Your task to perform on an android device: turn off location Image 0: 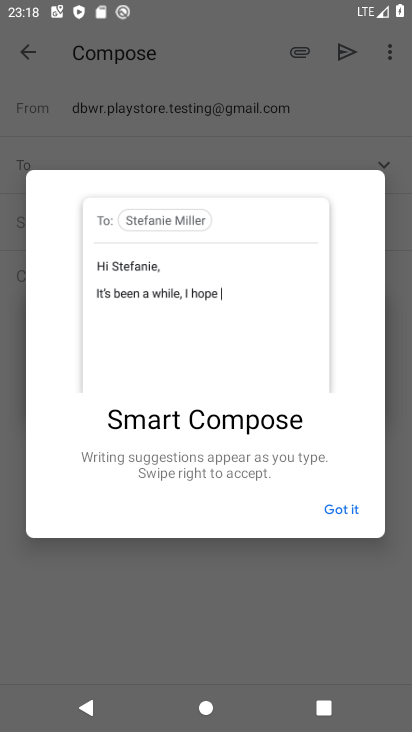
Step 0: press home button
Your task to perform on an android device: turn off location Image 1: 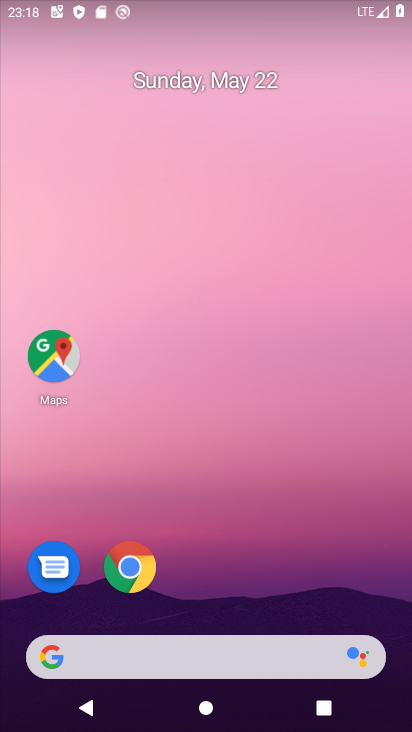
Step 1: drag from (246, 581) to (245, 2)
Your task to perform on an android device: turn off location Image 2: 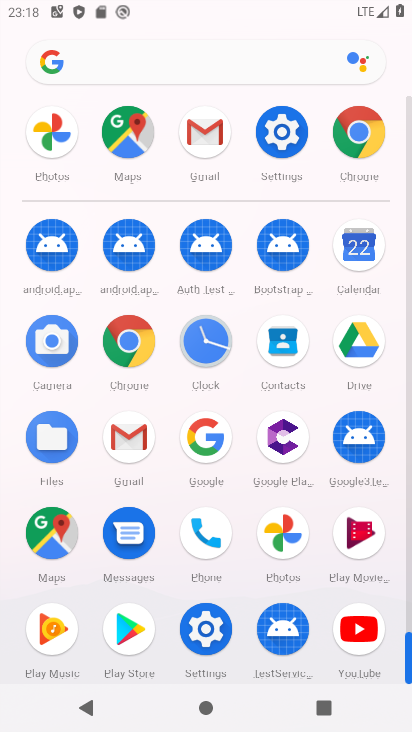
Step 2: click (11, 194)
Your task to perform on an android device: turn off location Image 3: 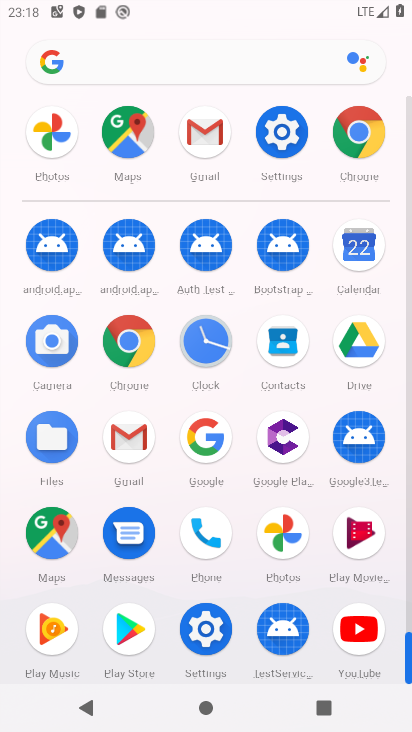
Step 3: click (203, 624)
Your task to perform on an android device: turn off location Image 4: 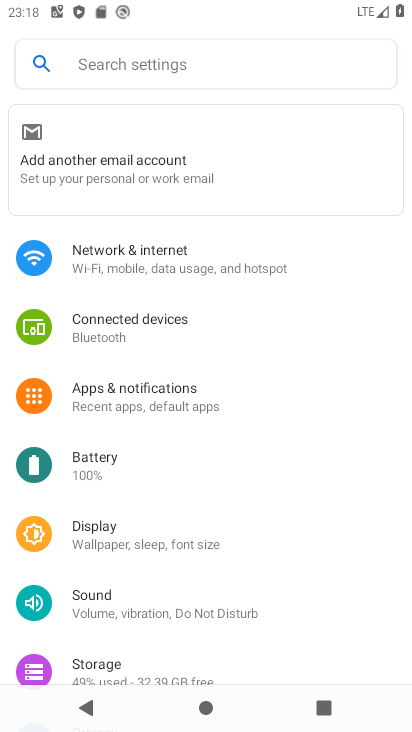
Step 4: drag from (214, 535) to (252, 107)
Your task to perform on an android device: turn off location Image 5: 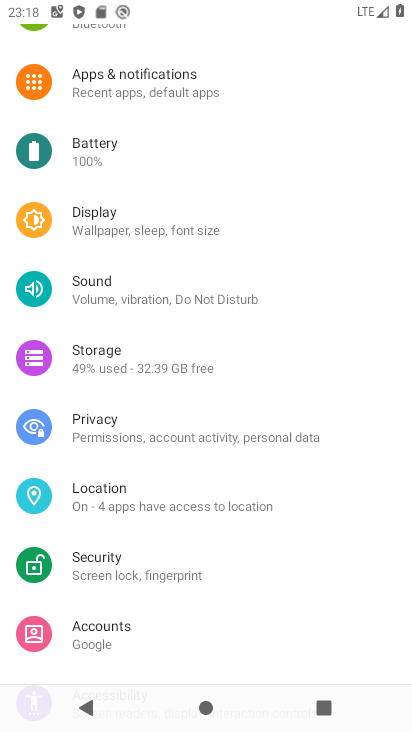
Step 5: click (128, 496)
Your task to perform on an android device: turn off location Image 6: 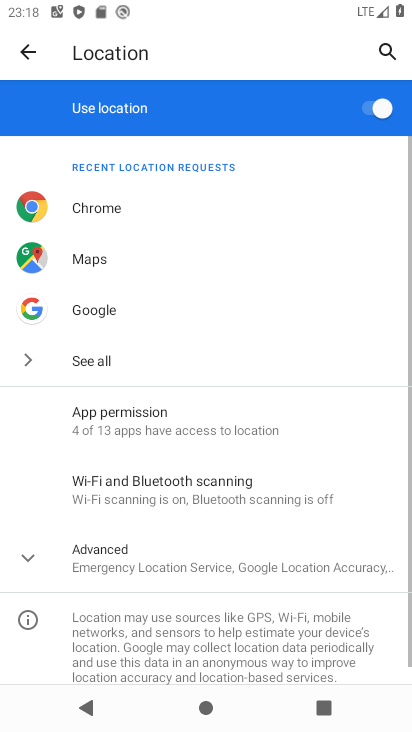
Step 6: click (380, 103)
Your task to perform on an android device: turn off location Image 7: 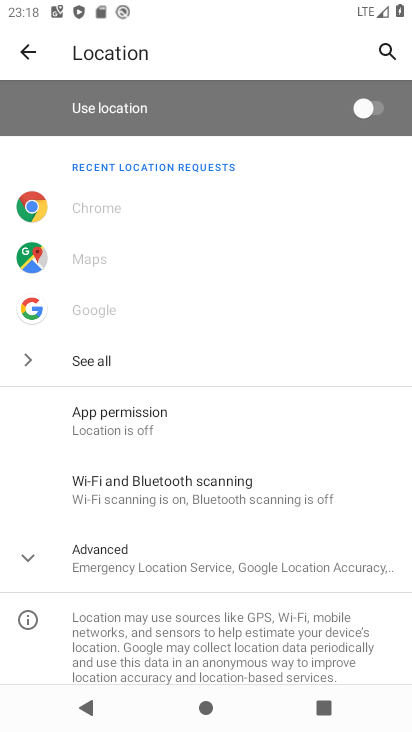
Step 7: task complete